Your task to perform on an android device: Go to Android settings Image 0: 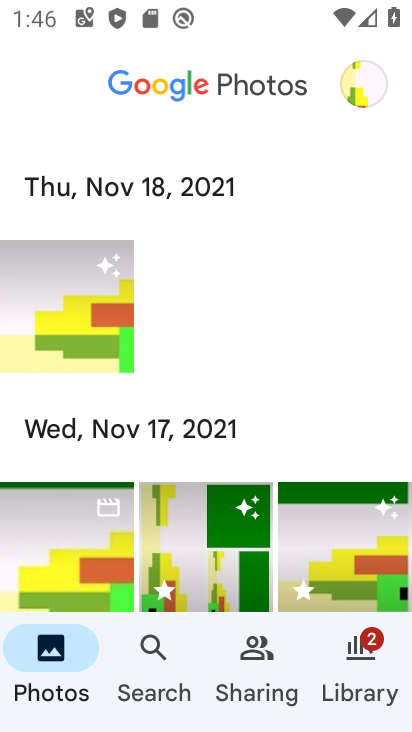
Step 0: press home button
Your task to perform on an android device: Go to Android settings Image 1: 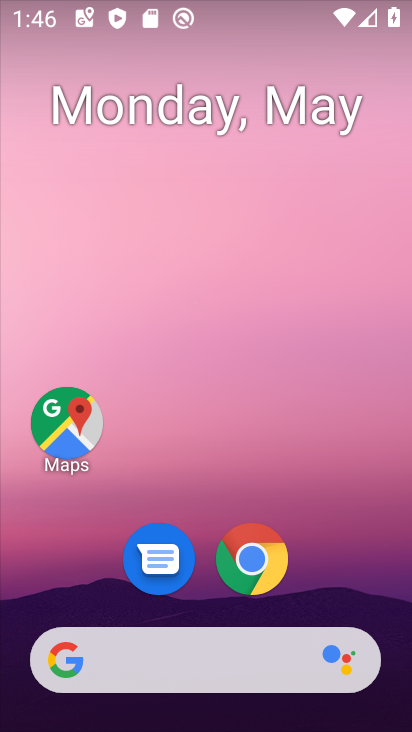
Step 1: drag from (184, 709) to (119, 93)
Your task to perform on an android device: Go to Android settings Image 2: 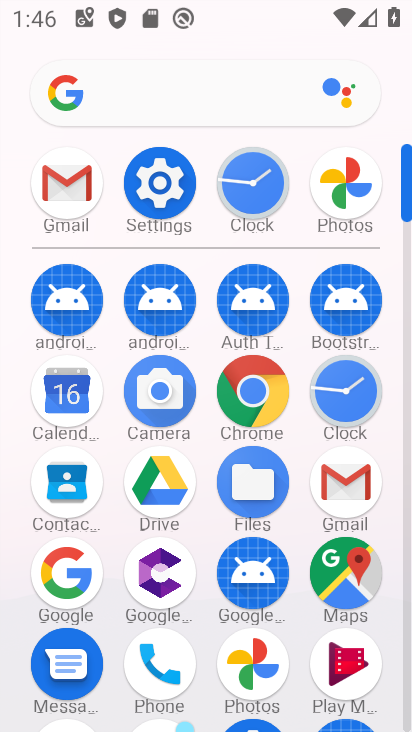
Step 2: click (153, 197)
Your task to perform on an android device: Go to Android settings Image 3: 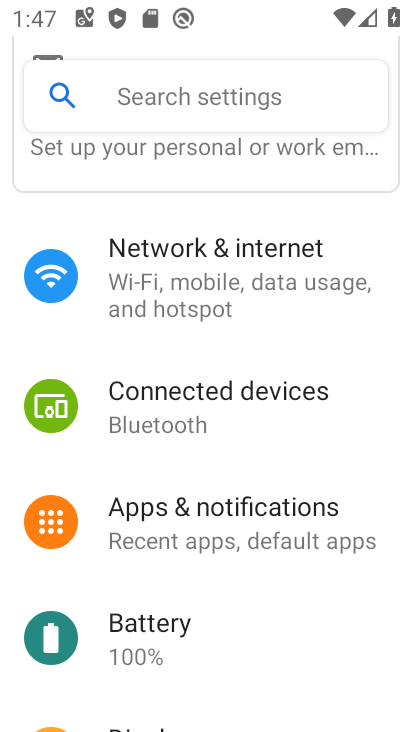
Step 3: task complete